Your task to perform on an android device: turn off airplane mode Image 0: 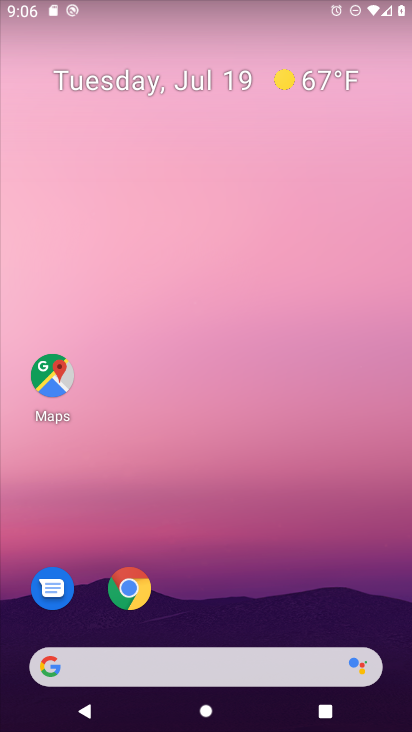
Step 0: drag from (349, 567) to (336, 114)
Your task to perform on an android device: turn off airplane mode Image 1: 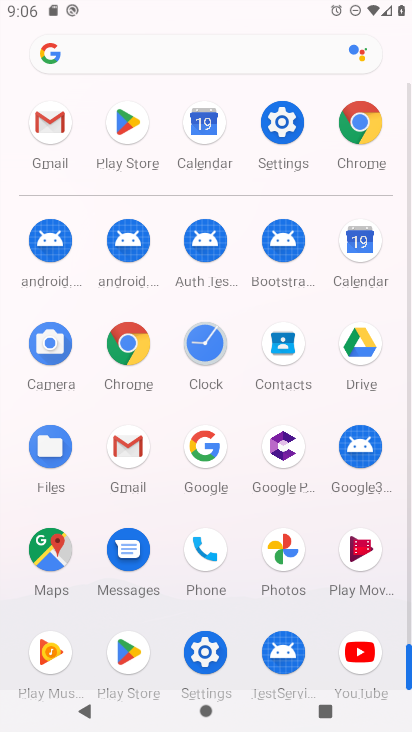
Step 1: click (288, 122)
Your task to perform on an android device: turn off airplane mode Image 2: 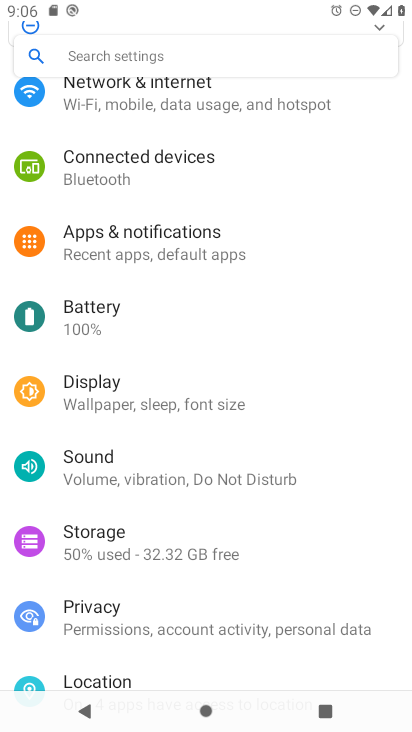
Step 2: drag from (354, 414) to (335, 278)
Your task to perform on an android device: turn off airplane mode Image 3: 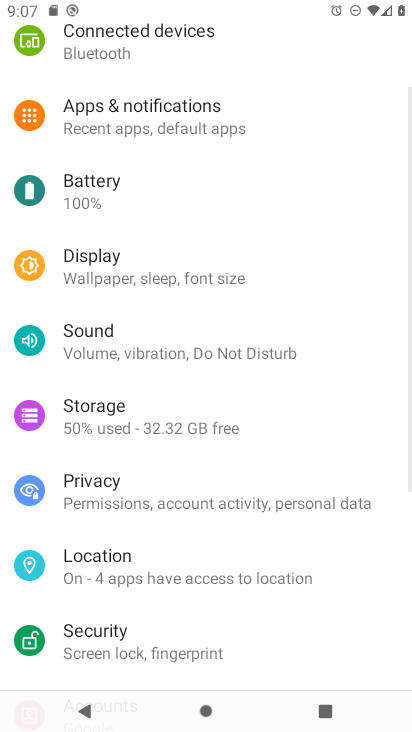
Step 3: drag from (329, 433) to (321, 289)
Your task to perform on an android device: turn off airplane mode Image 4: 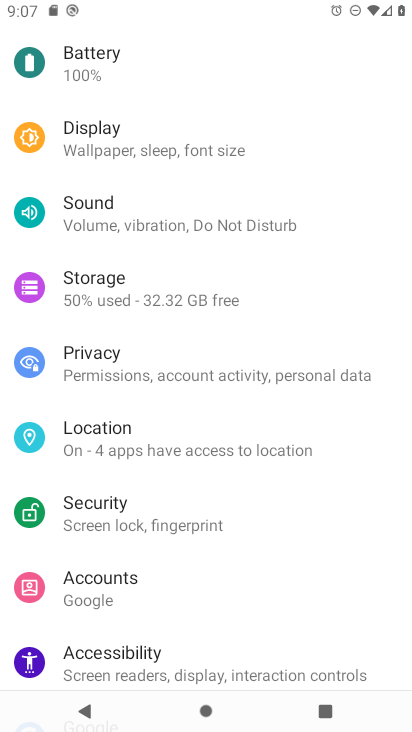
Step 4: drag from (318, 493) to (337, 384)
Your task to perform on an android device: turn off airplane mode Image 5: 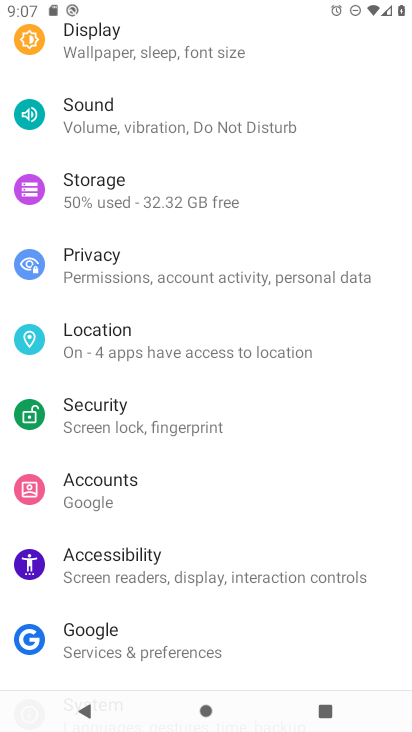
Step 5: drag from (341, 506) to (333, 388)
Your task to perform on an android device: turn off airplane mode Image 6: 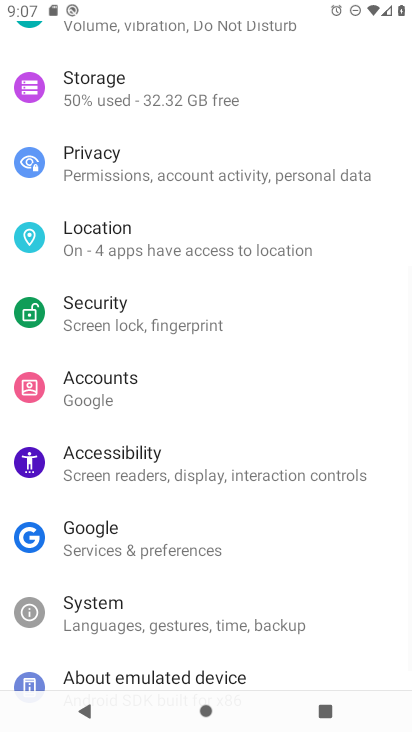
Step 6: drag from (339, 526) to (328, 420)
Your task to perform on an android device: turn off airplane mode Image 7: 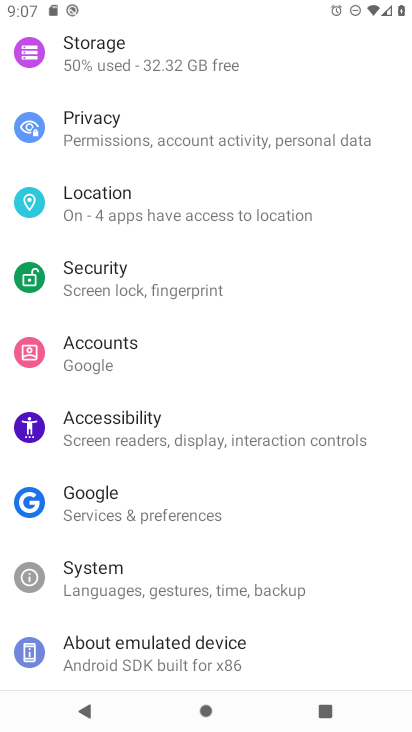
Step 7: drag from (335, 295) to (351, 399)
Your task to perform on an android device: turn off airplane mode Image 8: 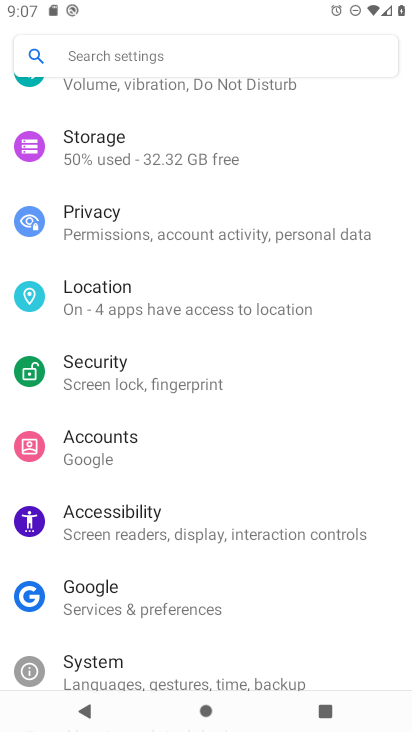
Step 8: drag from (352, 314) to (373, 431)
Your task to perform on an android device: turn off airplane mode Image 9: 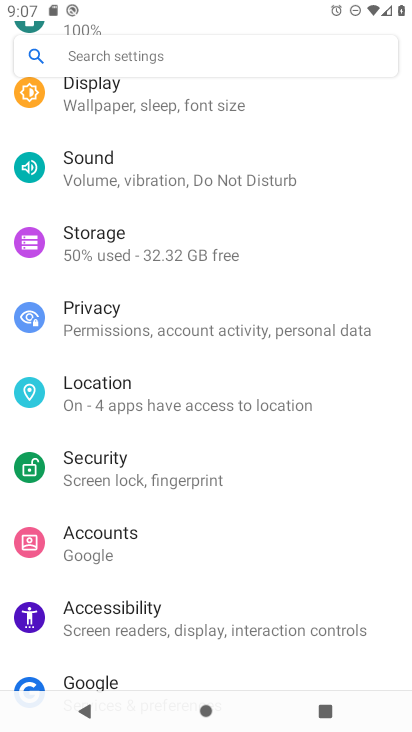
Step 9: drag from (357, 244) to (357, 376)
Your task to perform on an android device: turn off airplane mode Image 10: 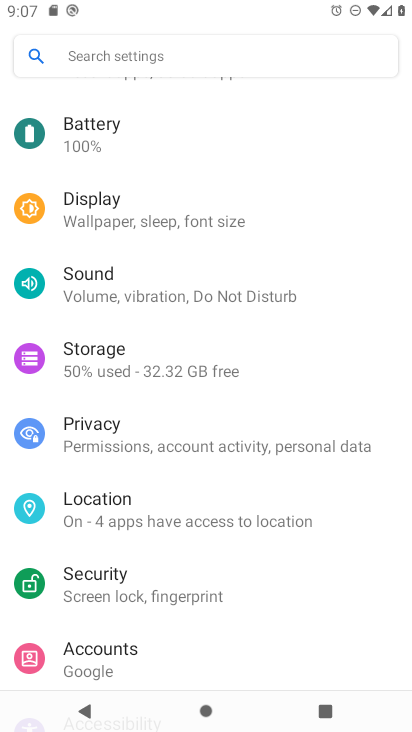
Step 10: drag from (348, 214) to (348, 352)
Your task to perform on an android device: turn off airplane mode Image 11: 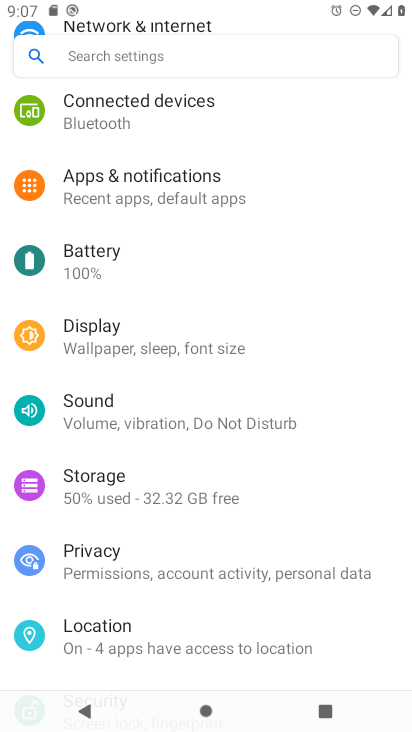
Step 11: drag from (334, 186) to (335, 325)
Your task to perform on an android device: turn off airplane mode Image 12: 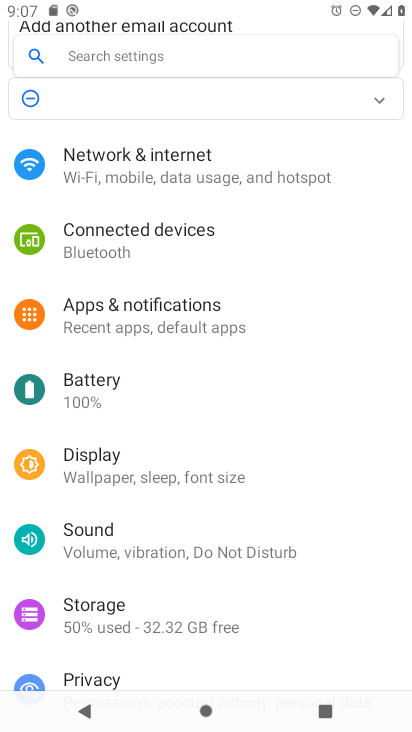
Step 12: click (295, 186)
Your task to perform on an android device: turn off airplane mode Image 13: 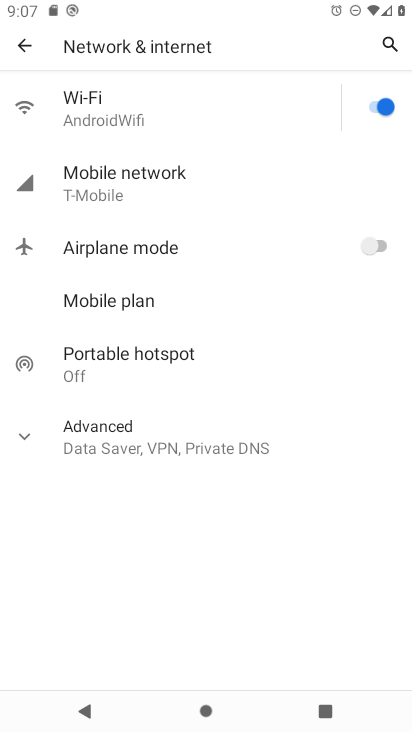
Step 13: task complete